Your task to perform on an android device: turn off translation in the chrome app Image 0: 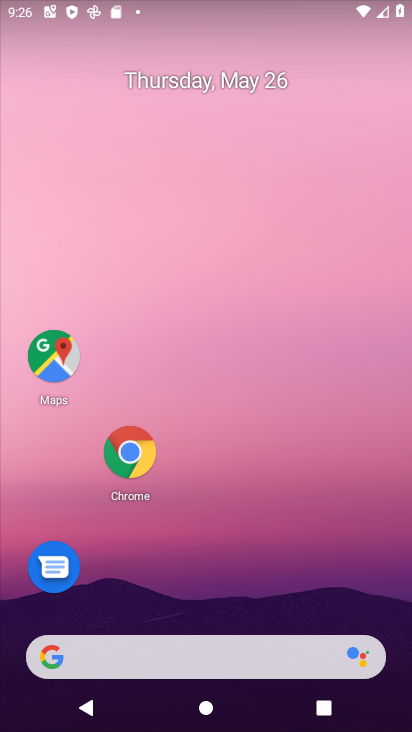
Step 0: press home button
Your task to perform on an android device: turn off translation in the chrome app Image 1: 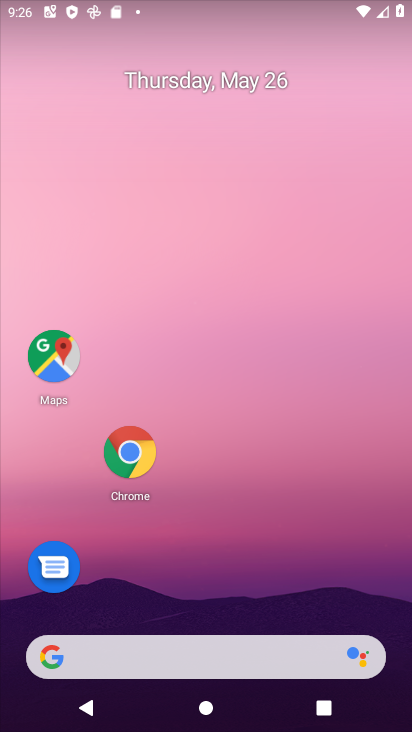
Step 1: click (130, 464)
Your task to perform on an android device: turn off translation in the chrome app Image 2: 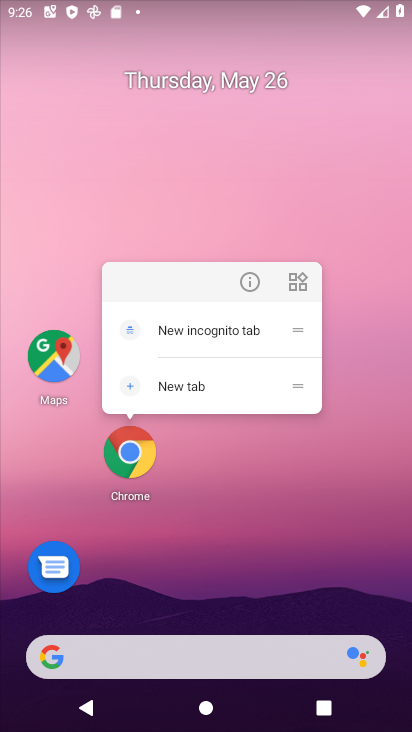
Step 2: click (113, 455)
Your task to perform on an android device: turn off translation in the chrome app Image 3: 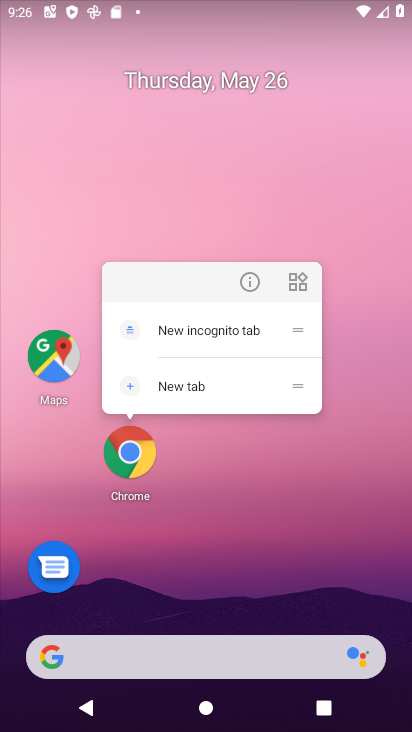
Step 3: click (135, 457)
Your task to perform on an android device: turn off translation in the chrome app Image 4: 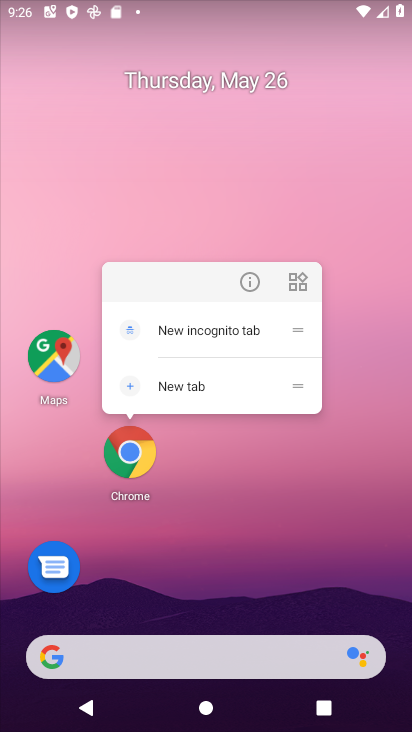
Step 4: click (130, 454)
Your task to perform on an android device: turn off translation in the chrome app Image 5: 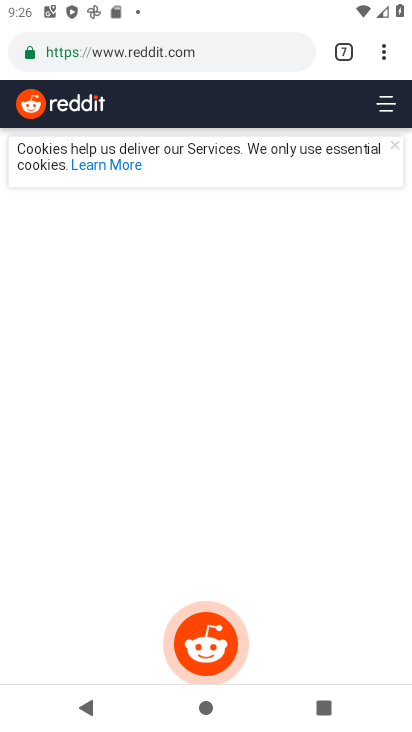
Step 5: drag from (382, 61) to (239, 607)
Your task to perform on an android device: turn off translation in the chrome app Image 6: 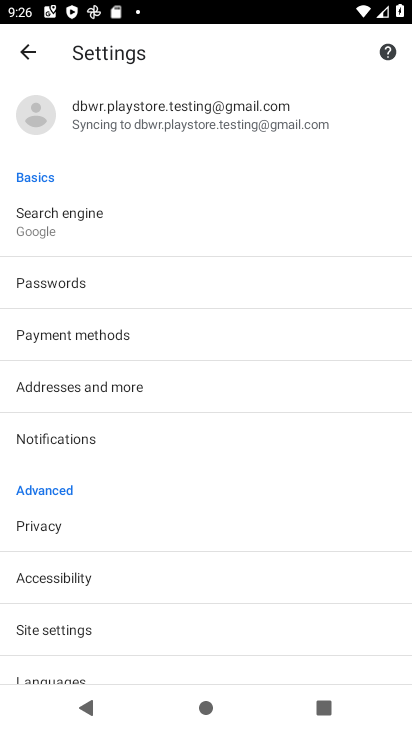
Step 6: drag from (176, 585) to (316, 352)
Your task to perform on an android device: turn off translation in the chrome app Image 7: 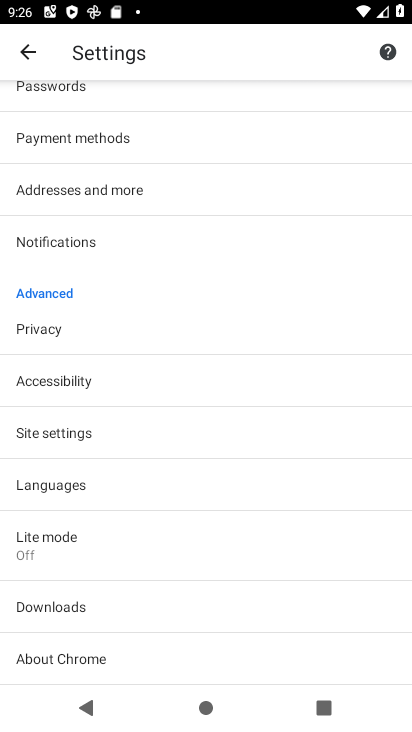
Step 7: click (91, 490)
Your task to perform on an android device: turn off translation in the chrome app Image 8: 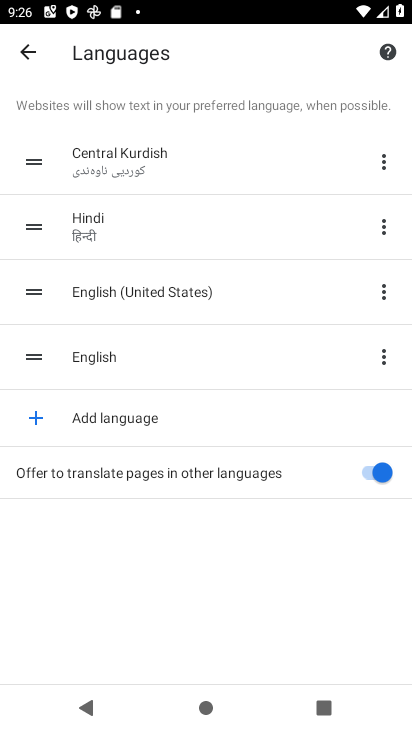
Step 8: click (362, 470)
Your task to perform on an android device: turn off translation in the chrome app Image 9: 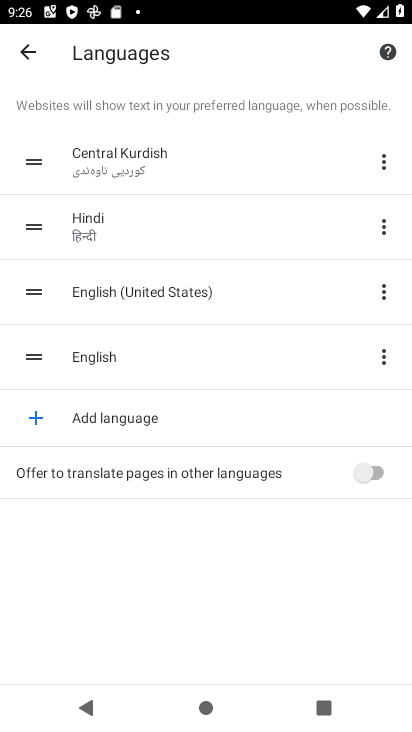
Step 9: task complete